Your task to perform on an android device: check battery use Image 0: 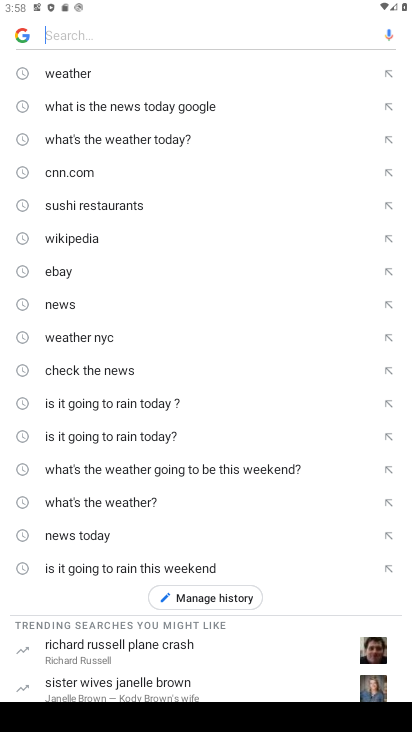
Step 0: press home button
Your task to perform on an android device: check battery use Image 1: 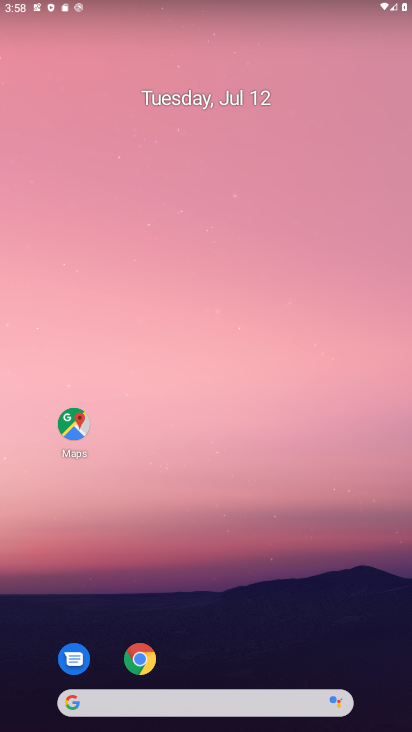
Step 1: drag from (224, 729) to (236, 353)
Your task to perform on an android device: check battery use Image 2: 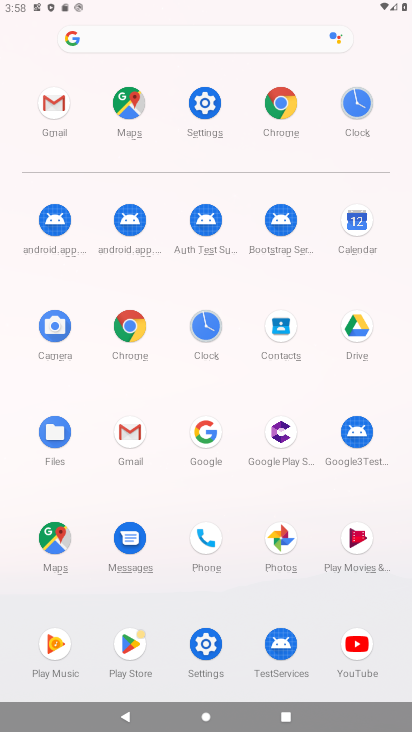
Step 2: click (205, 101)
Your task to perform on an android device: check battery use Image 3: 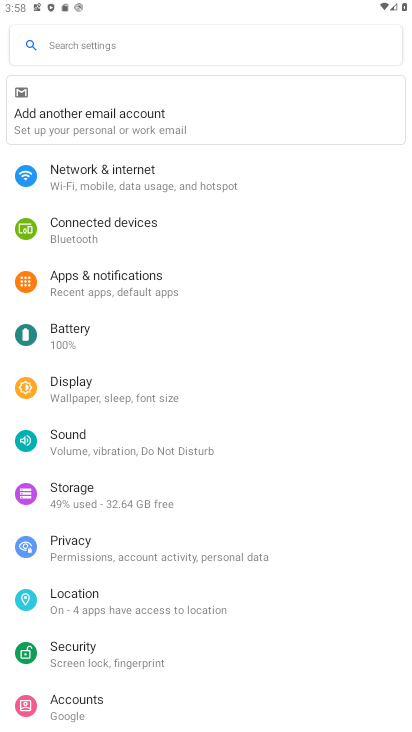
Step 3: click (64, 336)
Your task to perform on an android device: check battery use Image 4: 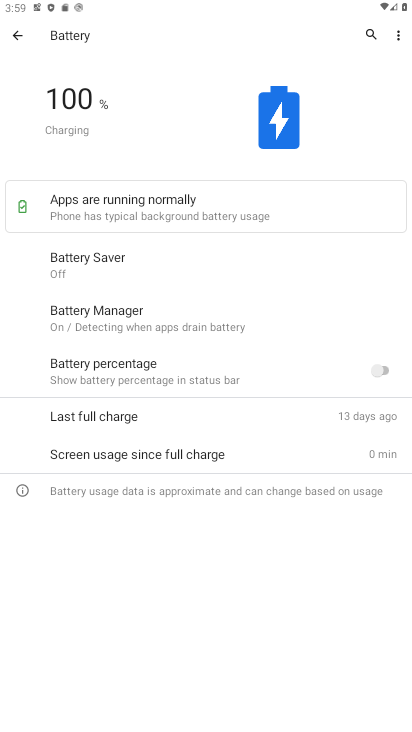
Step 4: click (397, 35)
Your task to perform on an android device: check battery use Image 5: 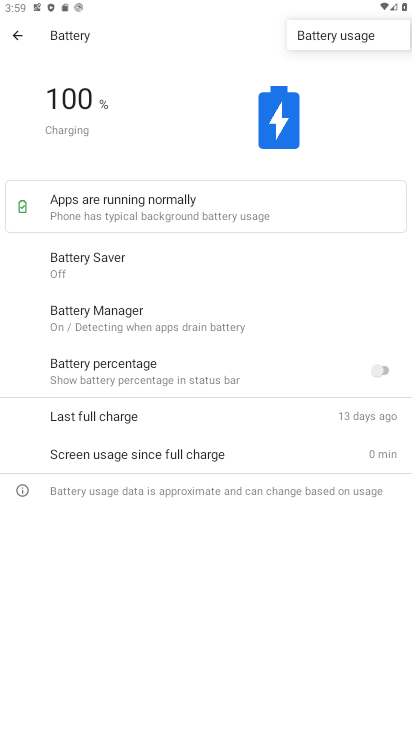
Step 5: click (351, 33)
Your task to perform on an android device: check battery use Image 6: 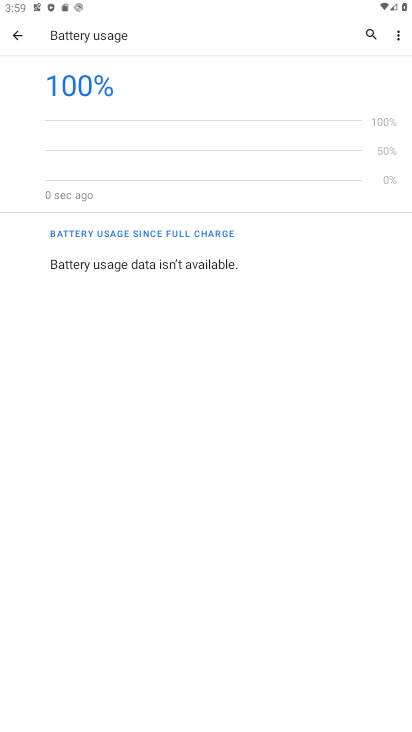
Step 6: task complete